Your task to perform on an android device: create a new album in the google photos Image 0: 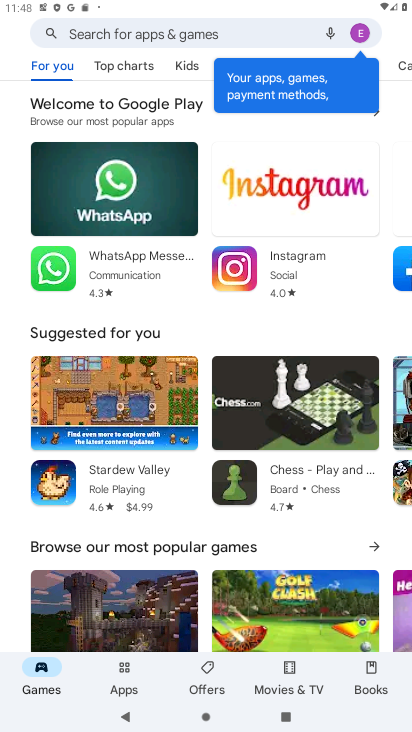
Step 0: press home button
Your task to perform on an android device: create a new album in the google photos Image 1: 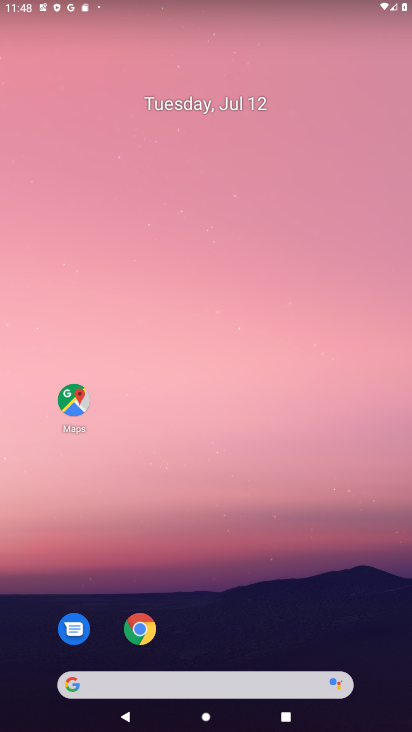
Step 1: drag from (303, 583) to (297, 105)
Your task to perform on an android device: create a new album in the google photos Image 2: 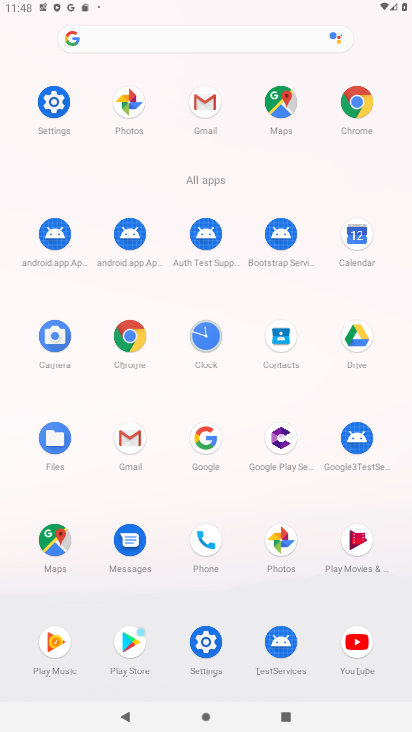
Step 2: click (289, 542)
Your task to perform on an android device: create a new album in the google photos Image 3: 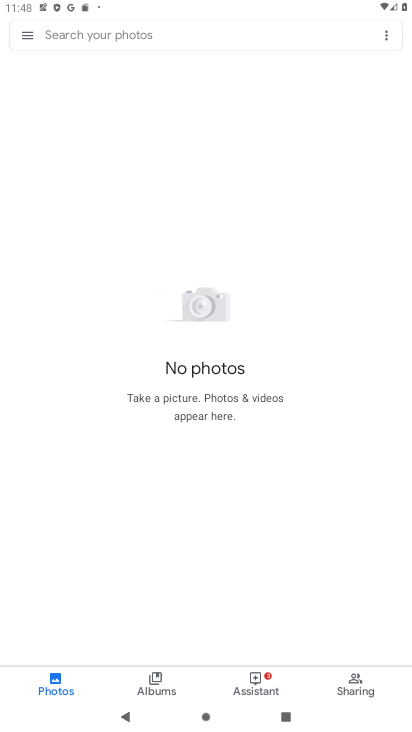
Step 3: click (157, 692)
Your task to perform on an android device: create a new album in the google photos Image 4: 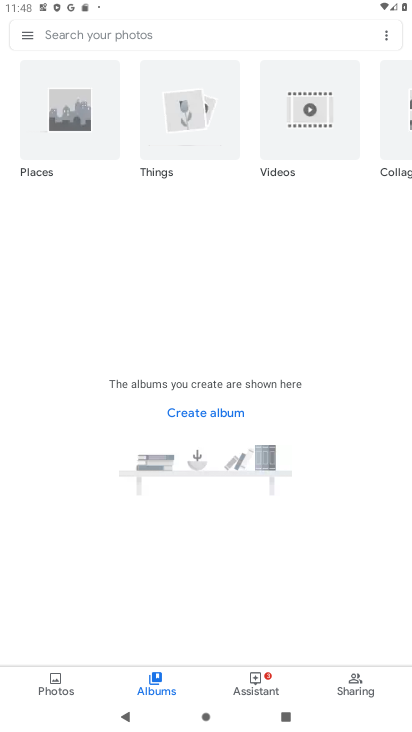
Step 4: click (232, 412)
Your task to perform on an android device: create a new album in the google photos Image 5: 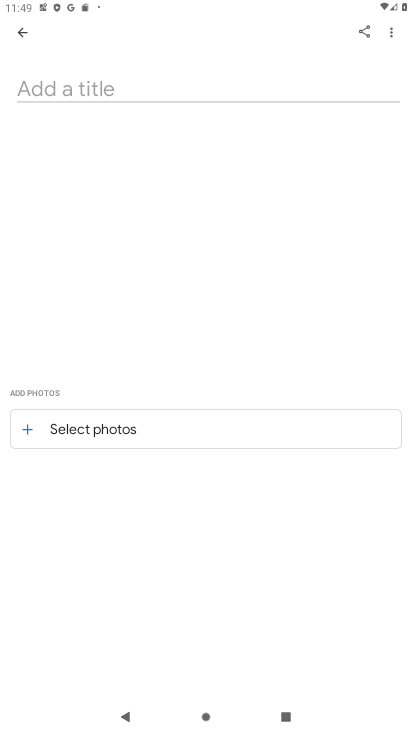
Step 5: click (202, 94)
Your task to perform on an android device: create a new album in the google photos Image 6: 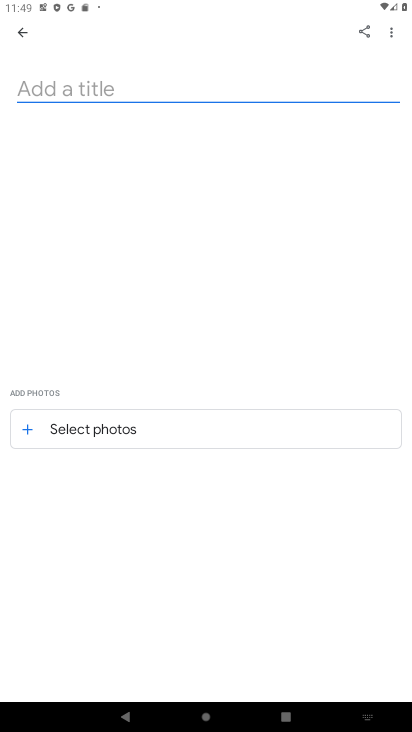
Step 6: type "bha9"
Your task to perform on an android device: create a new album in the google photos Image 7: 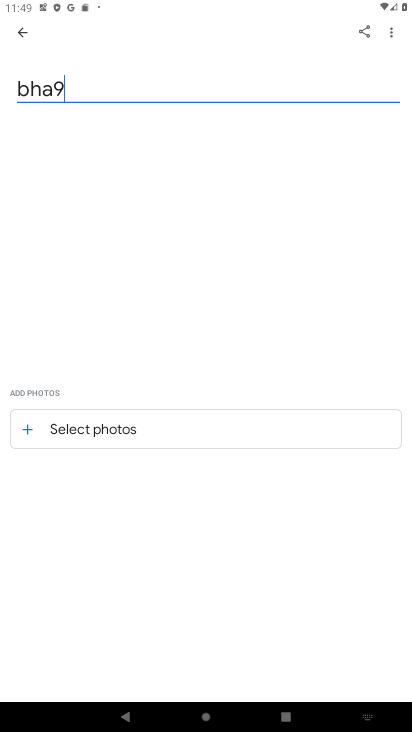
Step 7: click (100, 438)
Your task to perform on an android device: create a new album in the google photos Image 8: 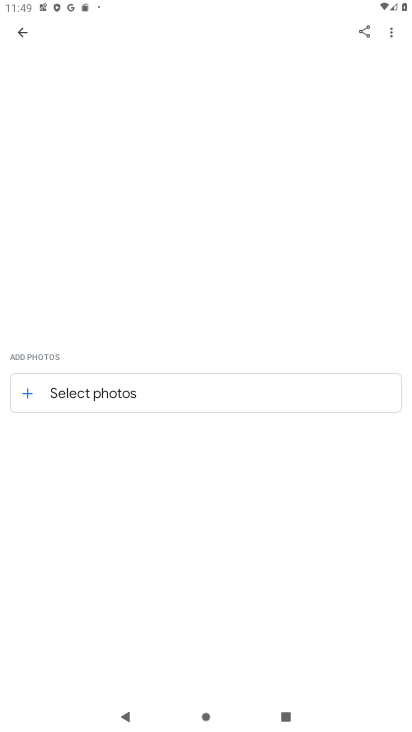
Step 8: click (100, 407)
Your task to perform on an android device: create a new album in the google photos Image 9: 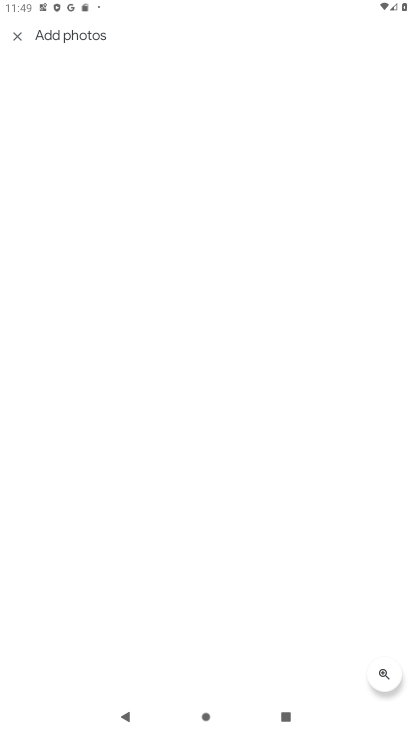
Step 9: click (16, 37)
Your task to perform on an android device: create a new album in the google photos Image 10: 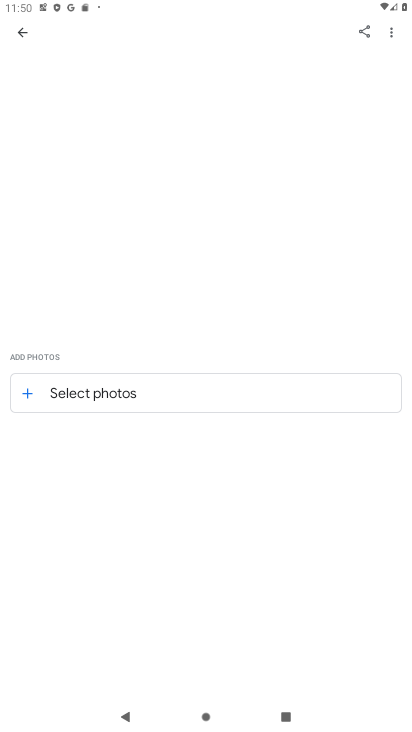
Step 10: task complete